Your task to perform on an android device: Open the stopwatch Image 0: 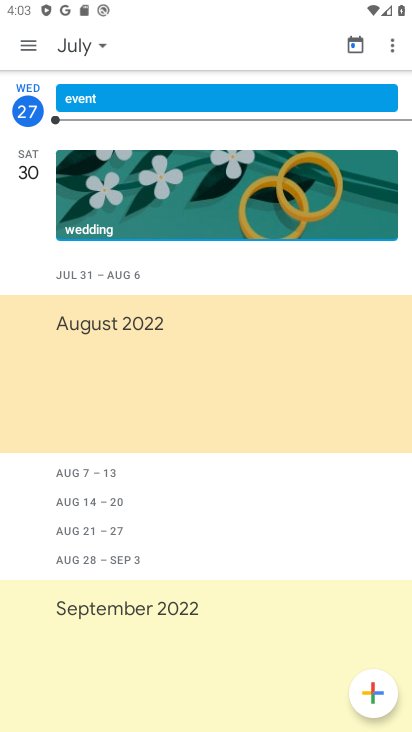
Step 0: press home button
Your task to perform on an android device: Open the stopwatch Image 1: 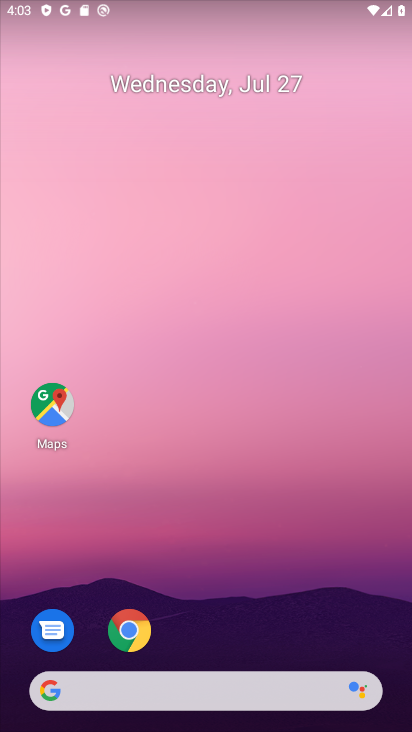
Step 1: drag from (217, 646) to (393, 9)
Your task to perform on an android device: Open the stopwatch Image 2: 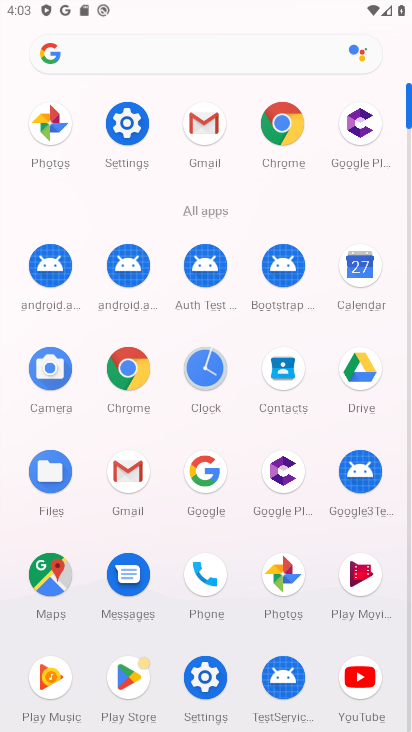
Step 2: click (195, 380)
Your task to perform on an android device: Open the stopwatch Image 3: 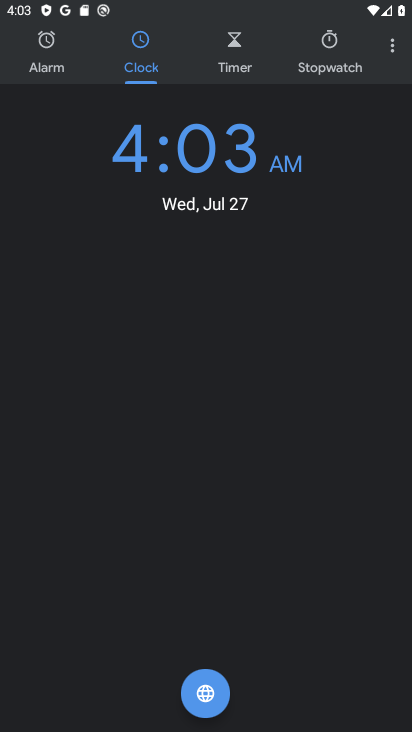
Step 3: click (350, 57)
Your task to perform on an android device: Open the stopwatch Image 4: 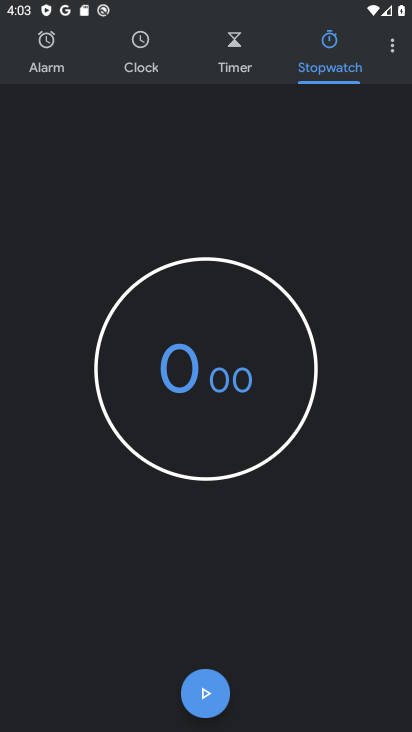
Step 4: click (201, 701)
Your task to perform on an android device: Open the stopwatch Image 5: 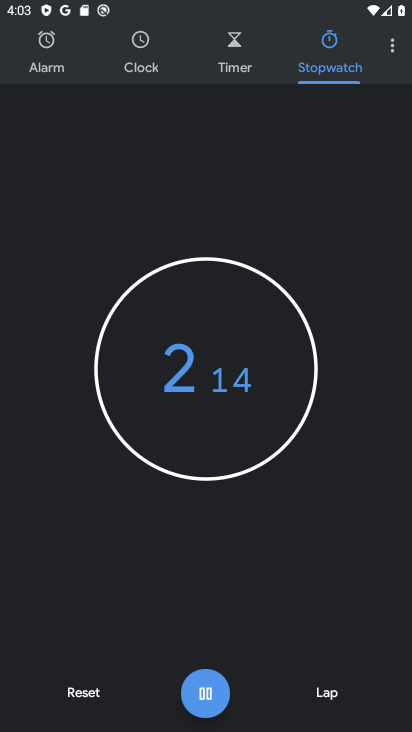
Step 5: task complete